Your task to perform on an android device: turn on location history Image 0: 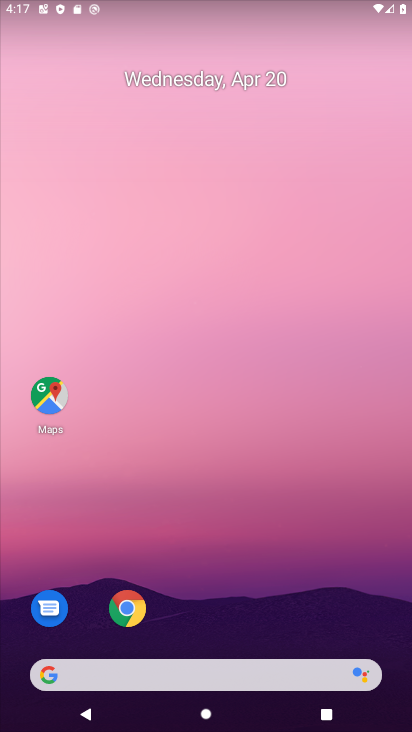
Step 0: drag from (315, 565) to (297, 228)
Your task to perform on an android device: turn on location history Image 1: 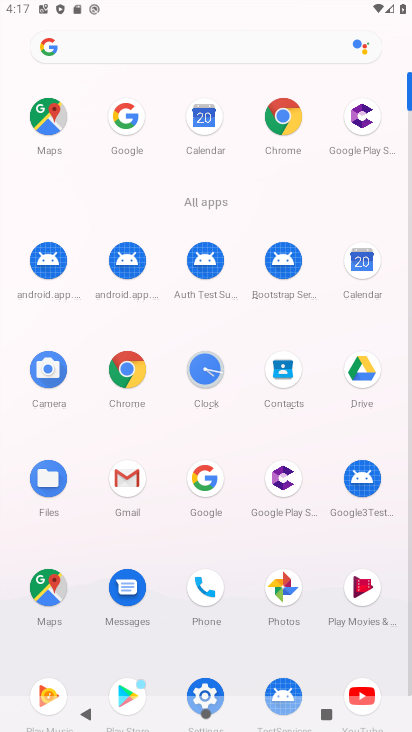
Step 1: click (50, 141)
Your task to perform on an android device: turn on location history Image 2: 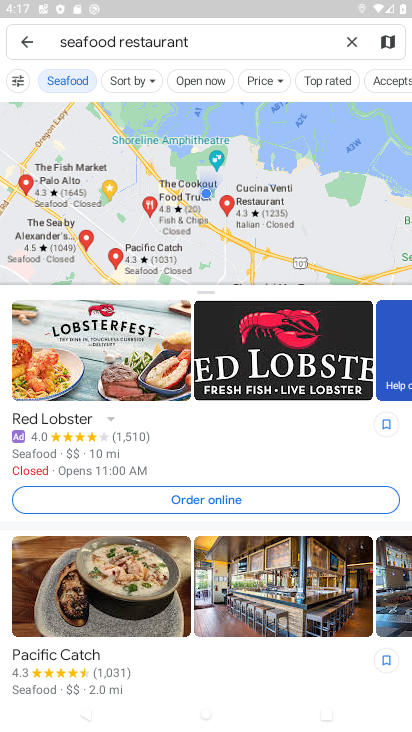
Step 2: click (23, 47)
Your task to perform on an android device: turn on location history Image 3: 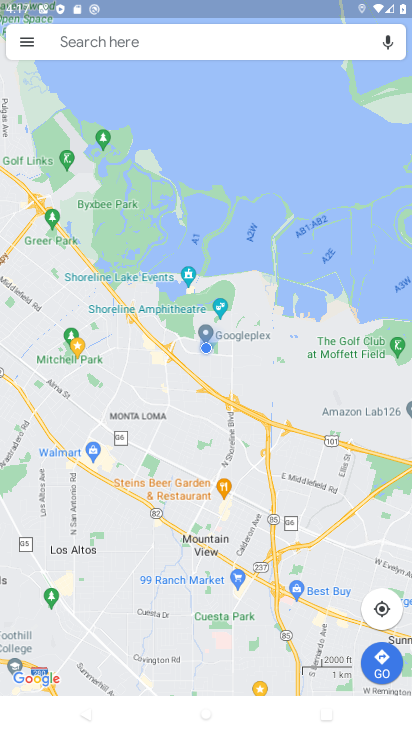
Step 3: click (23, 47)
Your task to perform on an android device: turn on location history Image 4: 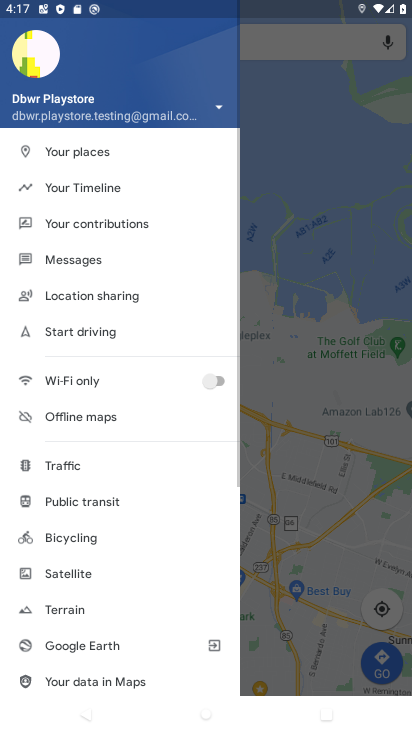
Step 4: click (98, 198)
Your task to perform on an android device: turn on location history Image 5: 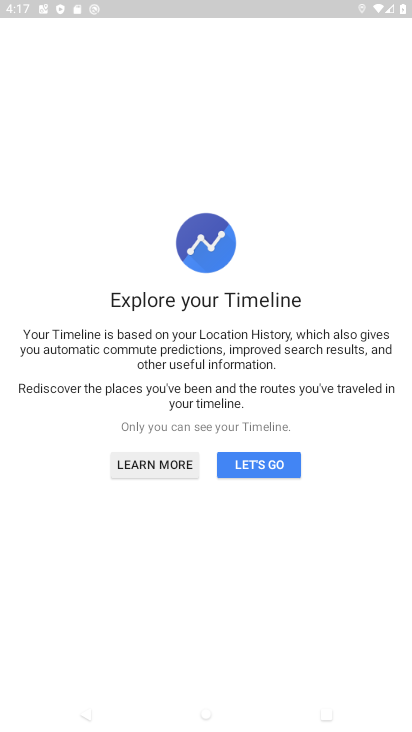
Step 5: click (267, 458)
Your task to perform on an android device: turn on location history Image 6: 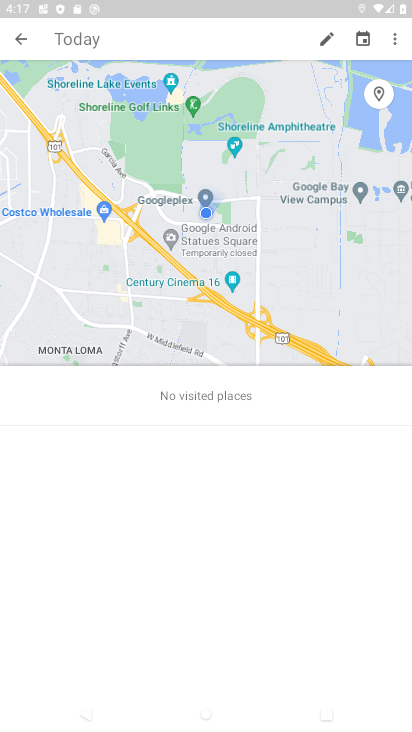
Step 6: click (397, 47)
Your task to perform on an android device: turn on location history Image 7: 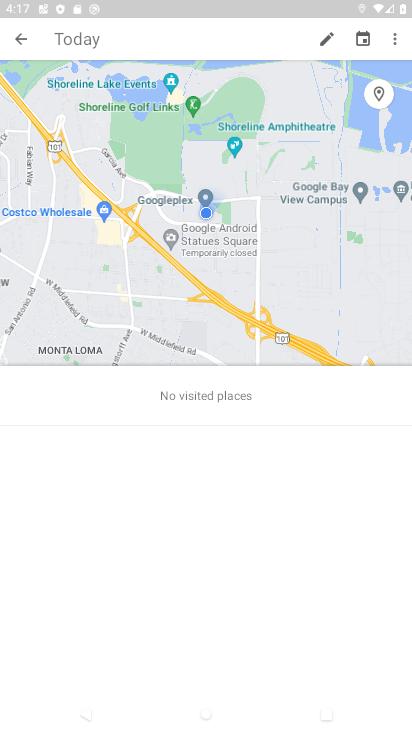
Step 7: click (389, 40)
Your task to perform on an android device: turn on location history Image 8: 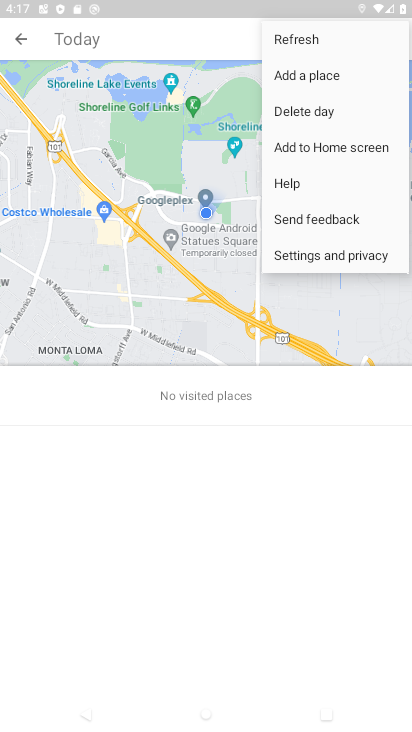
Step 8: click (351, 262)
Your task to perform on an android device: turn on location history Image 9: 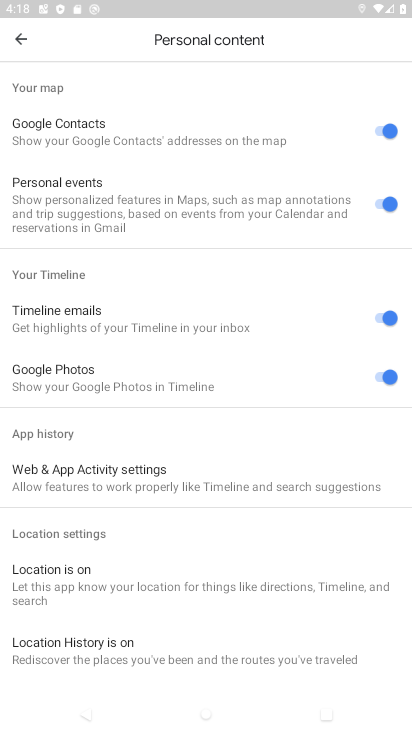
Step 9: click (300, 660)
Your task to perform on an android device: turn on location history Image 10: 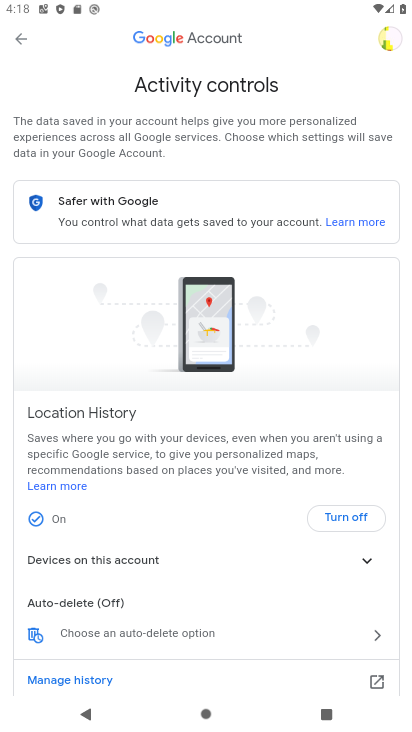
Step 10: task complete